Your task to perform on an android device: clear history in the chrome app Image 0: 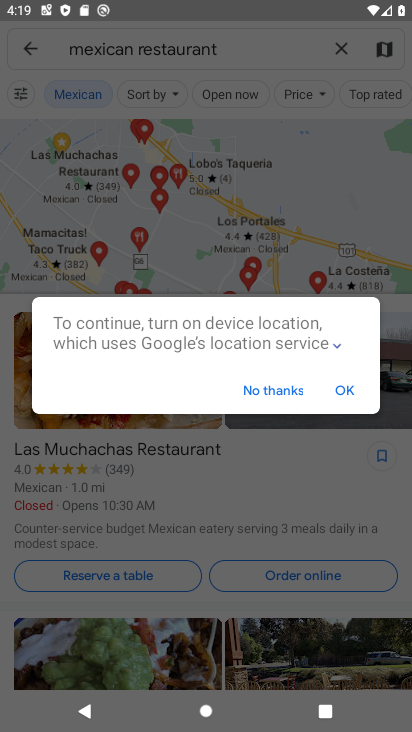
Step 0: press home button
Your task to perform on an android device: clear history in the chrome app Image 1: 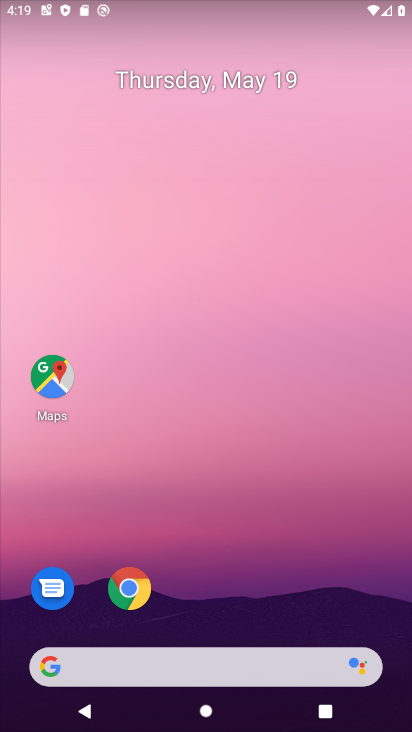
Step 1: click (123, 587)
Your task to perform on an android device: clear history in the chrome app Image 2: 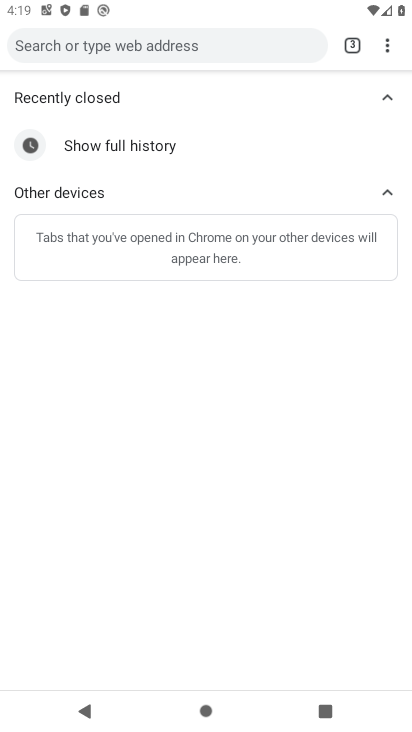
Step 2: click (395, 47)
Your task to perform on an android device: clear history in the chrome app Image 3: 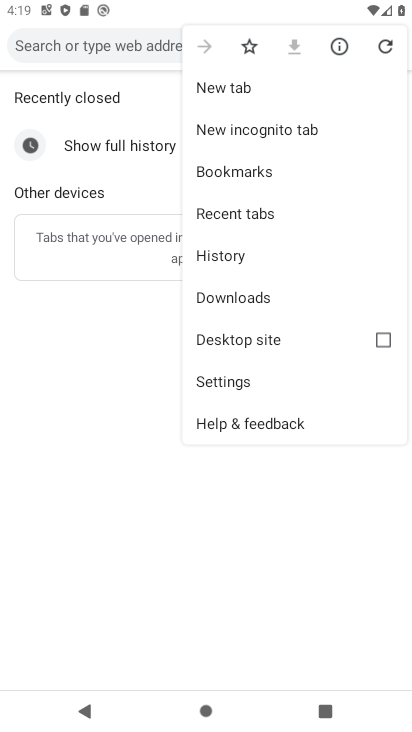
Step 3: click (265, 265)
Your task to perform on an android device: clear history in the chrome app Image 4: 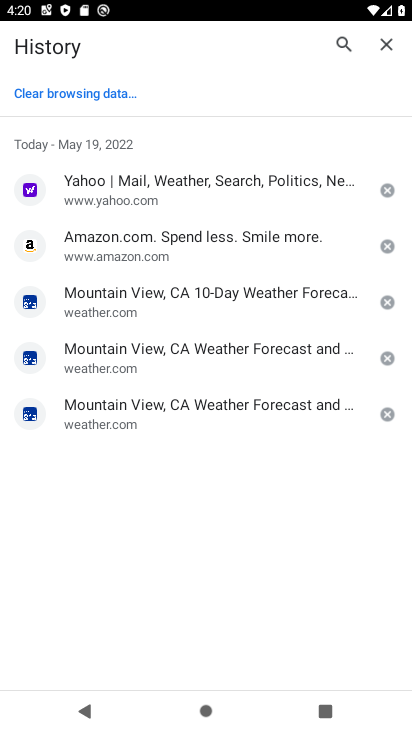
Step 4: click (63, 112)
Your task to perform on an android device: clear history in the chrome app Image 5: 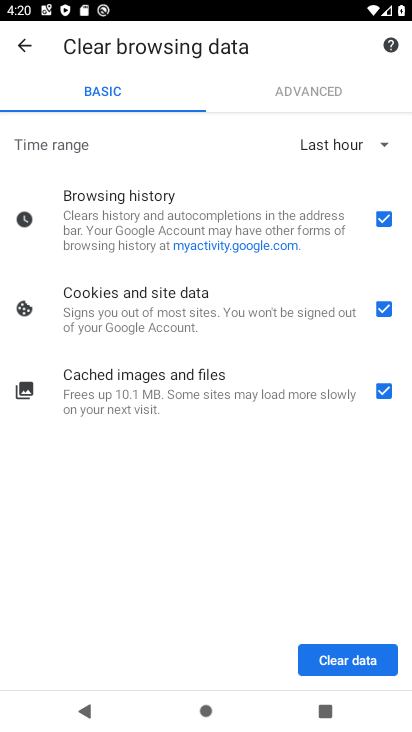
Step 5: click (344, 648)
Your task to perform on an android device: clear history in the chrome app Image 6: 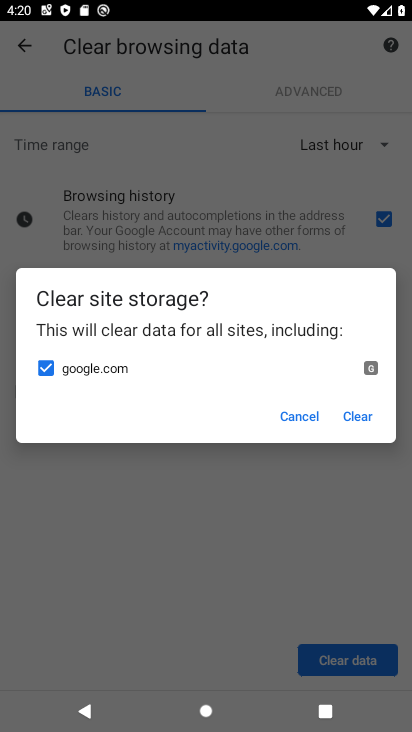
Step 6: click (362, 423)
Your task to perform on an android device: clear history in the chrome app Image 7: 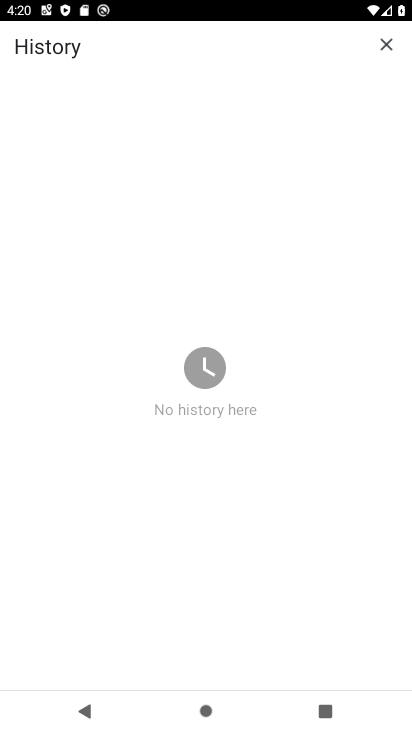
Step 7: task complete